Your task to perform on an android device: open app "PUBG MOBILE" (install if not already installed) Image 0: 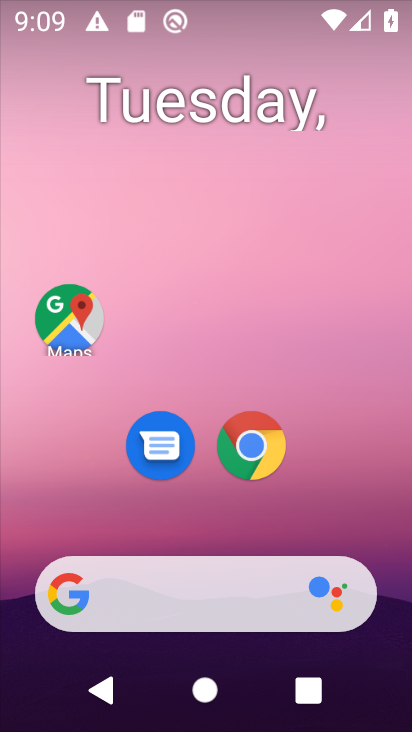
Step 0: drag from (233, 557) to (207, 156)
Your task to perform on an android device: open app "PUBG MOBILE" (install if not already installed) Image 1: 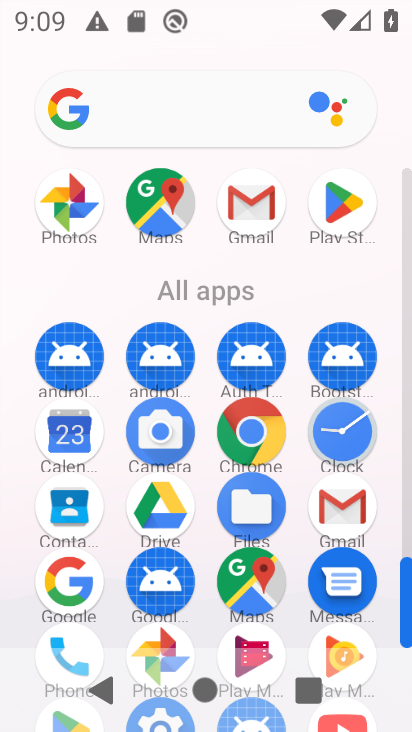
Step 1: click (337, 197)
Your task to perform on an android device: open app "PUBG MOBILE" (install if not already installed) Image 2: 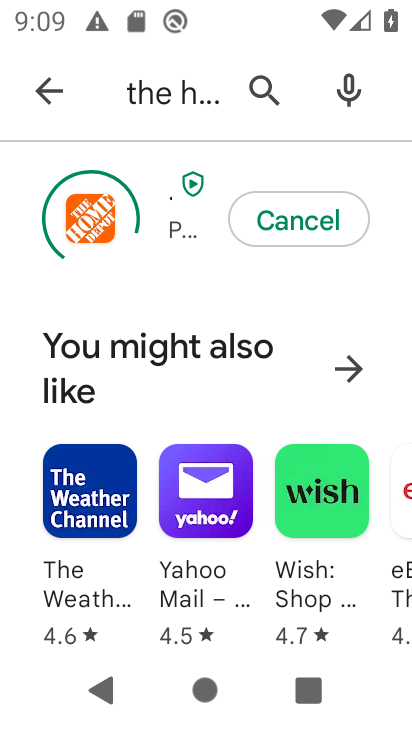
Step 2: click (54, 87)
Your task to perform on an android device: open app "PUBG MOBILE" (install if not already installed) Image 3: 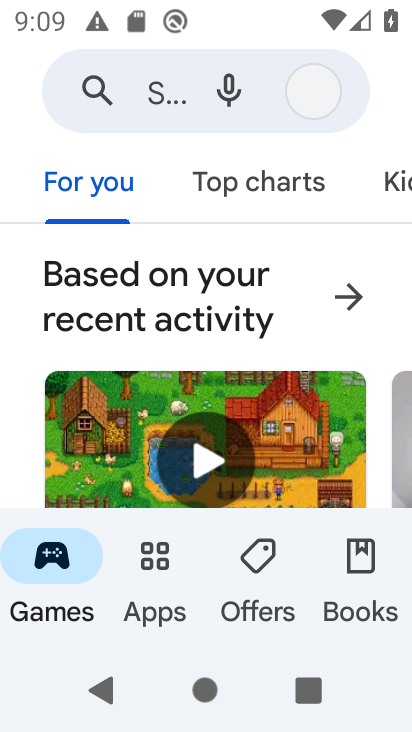
Step 3: click (113, 79)
Your task to perform on an android device: open app "PUBG MOBILE" (install if not already installed) Image 4: 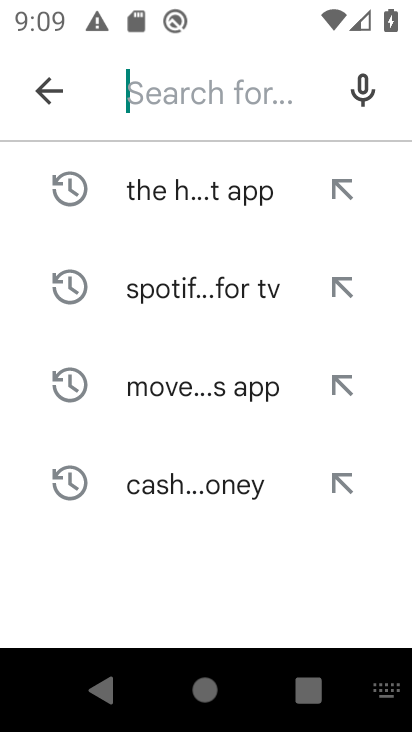
Step 4: click (191, 84)
Your task to perform on an android device: open app "PUBG MOBILE" (install if not already installed) Image 5: 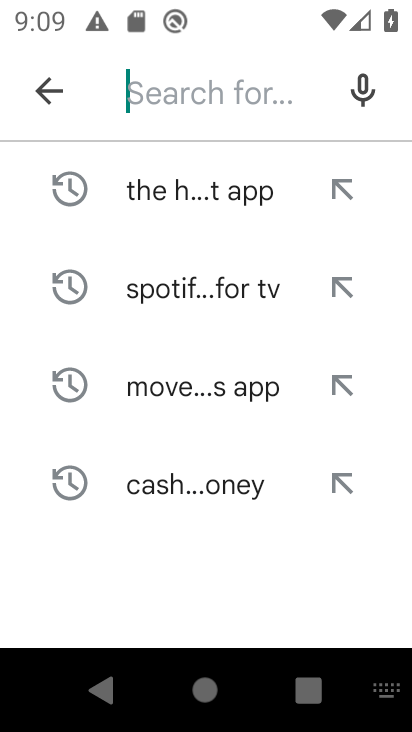
Step 5: type "PUBG MOBILE "
Your task to perform on an android device: open app "PUBG MOBILE" (install if not already installed) Image 6: 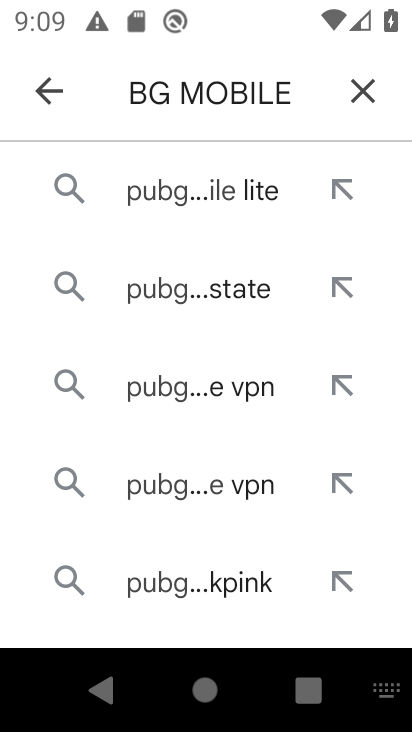
Step 6: click (186, 183)
Your task to perform on an android device: open app "PUBG MOBILE" (install if not already installed) Image 7: 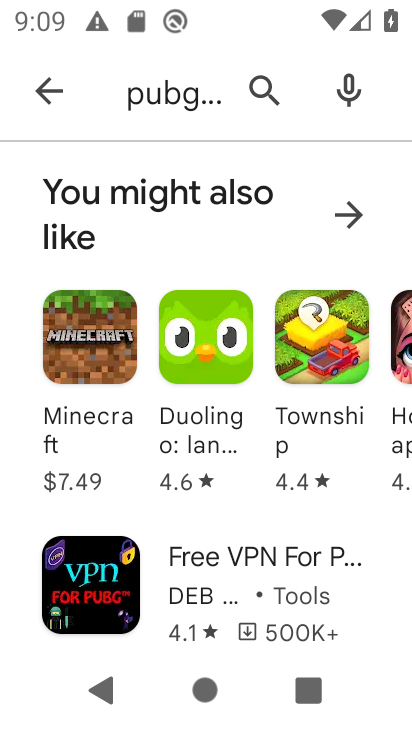
Step 7: drag from (367, 626) to (361, 173)
Your task to perform on an android device: open app "PUBG MOBILE" (install if not already installed) Image 8: 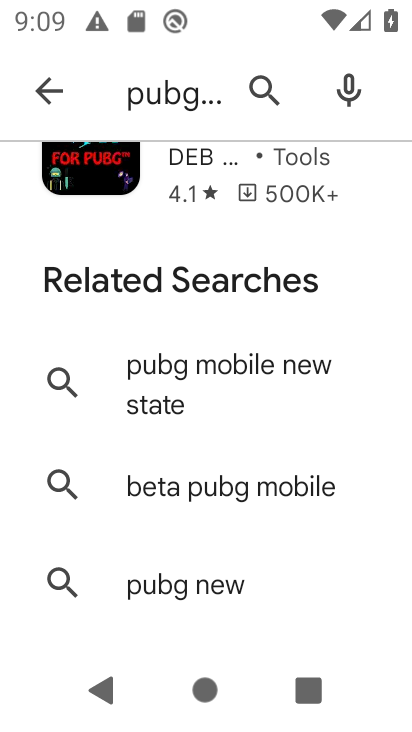
Step 8: click (180, 573)
Your task to perform on an android device: open app "PUBG MOBILE" (install if not already installed) Image 9: 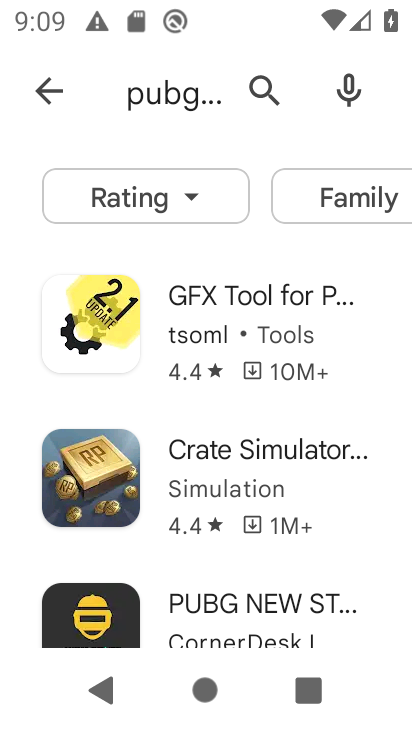
Step 9: drag from (212, 508) to (302, 183)
Your task to perform on an android device: open app "PUBG MOBILE" (install if not already installed) Image 10: 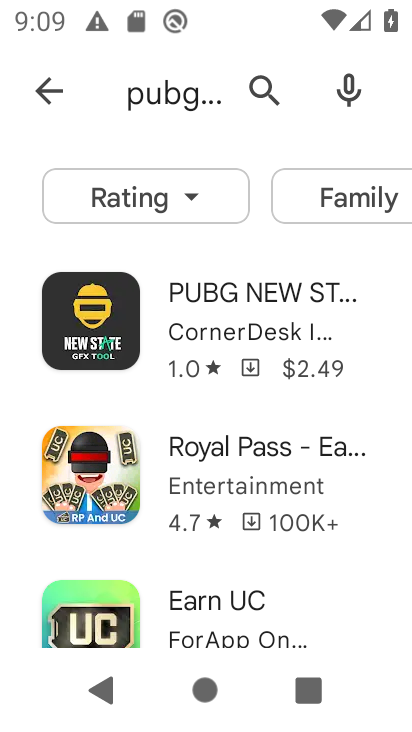
Step 10: drag from (268, 503) to (300, 129)
Your task to perform on an android device: open app "PUBG MOBILE" (install if not already installed) Image 11: 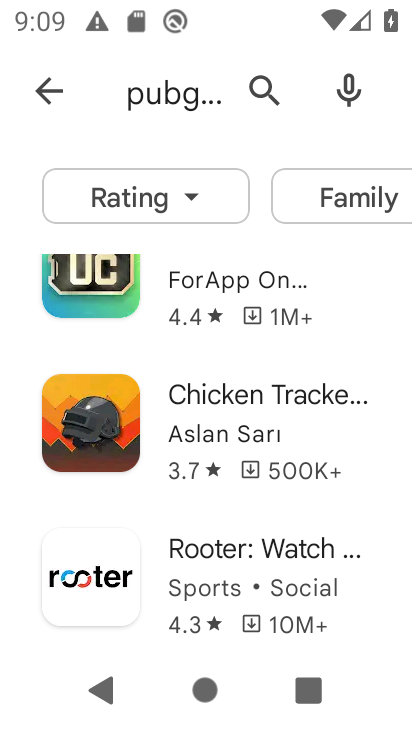
Step 11: drag from (299, 605) to (280, 197)
Your task to perform on an android device: open app "PUBG MOBILE" (install if not already installed) Image 12: 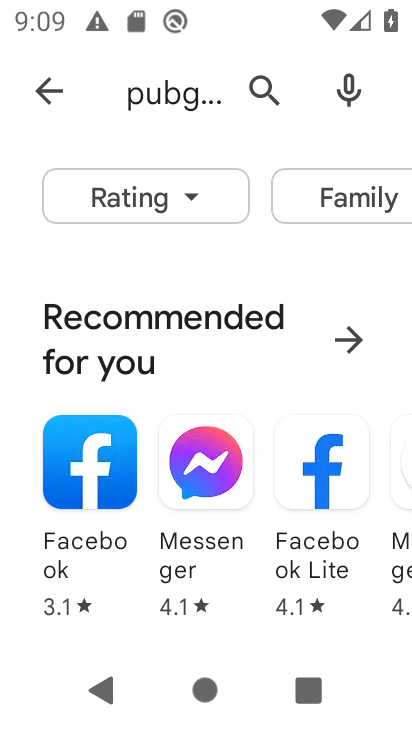
Step 12: click (66, 84)
Your task to perform on an android device: open app "PUBG MOBILE" (install if not already installed) Image 13: 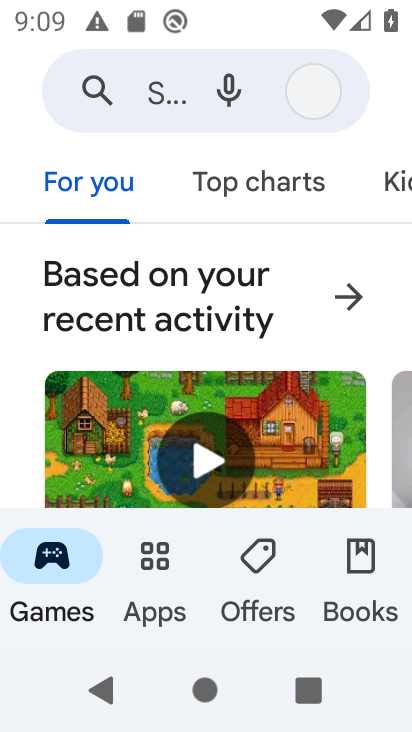
Step 13: task complete